Your task to perform on an android device: Open internet settings Image 0: 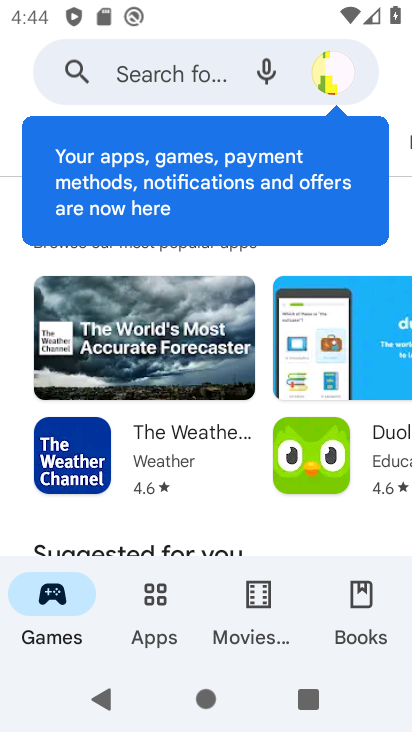
Step 0: press home button
Your task to perform on an android device: Open internet settings Image 1: 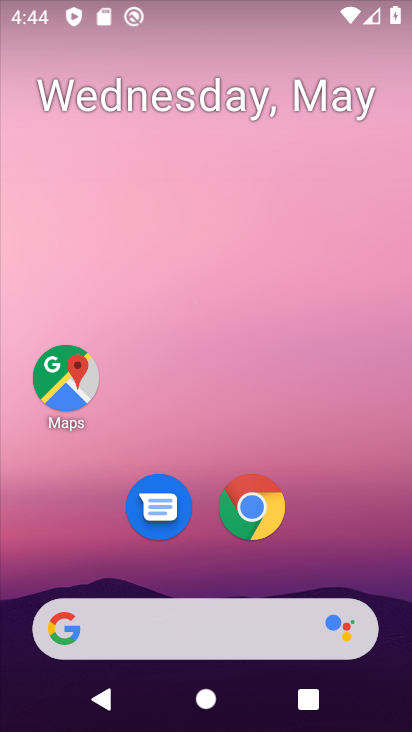
Step 1: drag from (337, 550) to (297, 157)
Your task to perform on an android device: Open internet settings Image 2: 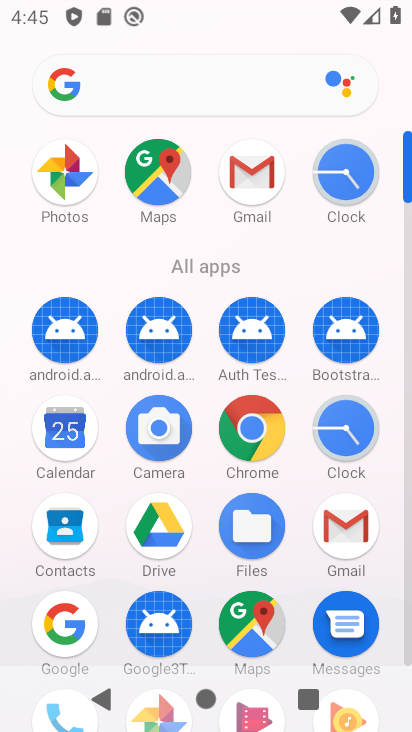
Step 2: drag from (299, 280) to (311, 63)
Your task to perform on an android device: Open internet settings Image 3: 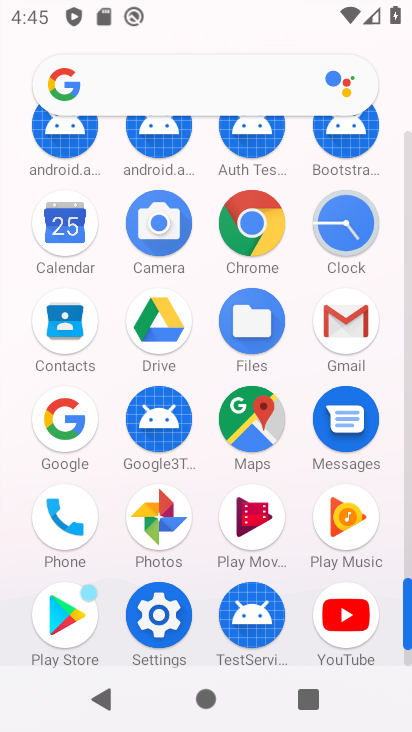
Step 3: click (161, 611)
Your task to perform on an android device: Open internet settings Image 4: 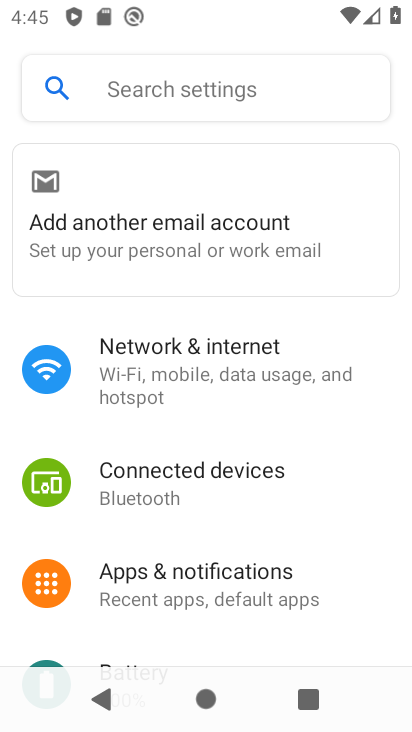
Step 4: click (183, 357)
Your task to perform on an android device: Open internet settings Image 5: 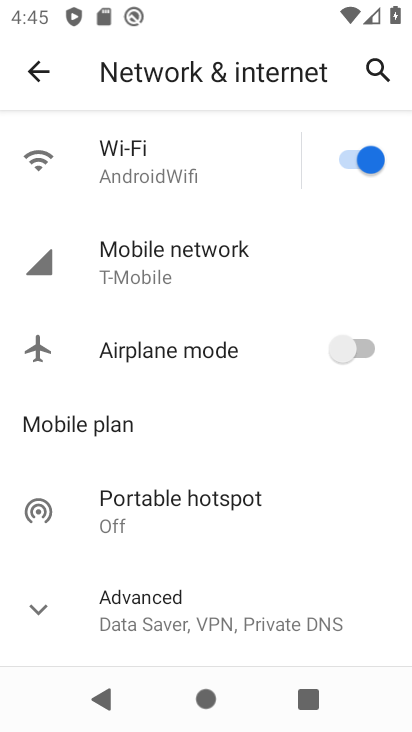
Step 5: click (164, 179)
Your task to perform on an android device: Open internet settings Image 6: 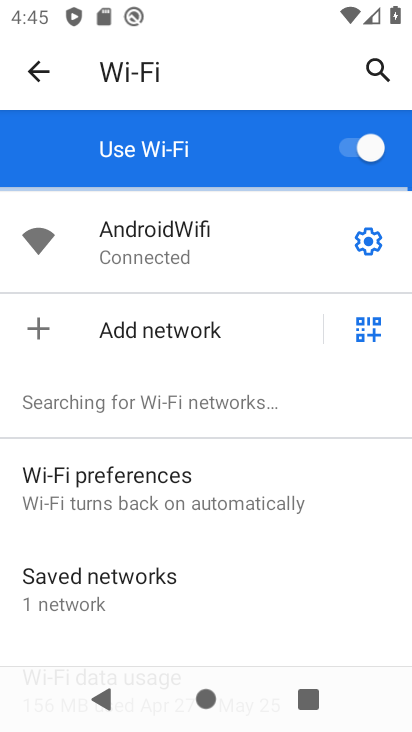
Step 6: click (367, 243)
Your task to perform on an android device: Open internet settings Image 7: 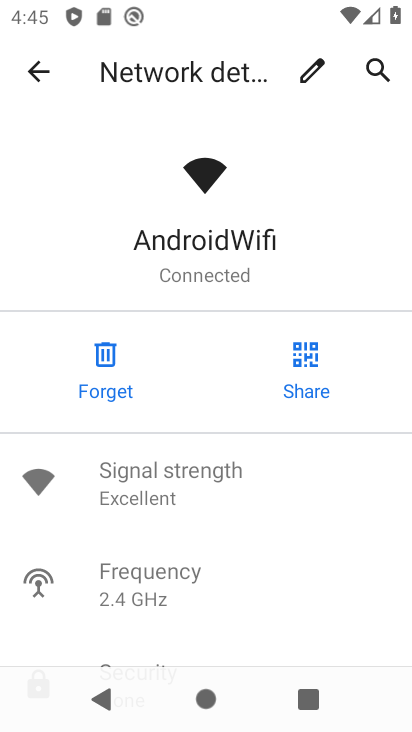
Step 7: task complete